Your task to perform on an android device: Open the calendar app, open the side menu, and click the "Day" option Image 0: 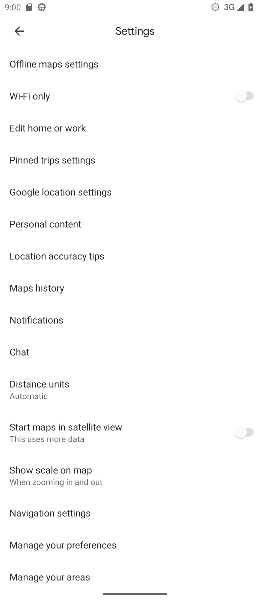
Step 0: press home button
Your task to perform on an android device: Open the calendar app, open the side menu, and click the "Day" option Image 1: 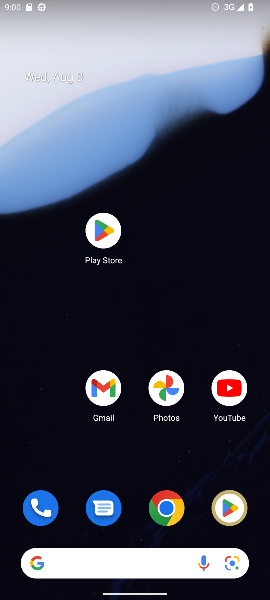
Step 1: drag from (143, 533) to (112, 32)
Your task to perform on an android device: Open the calendar app, open the side menu, and click the "Day" option Image 2: 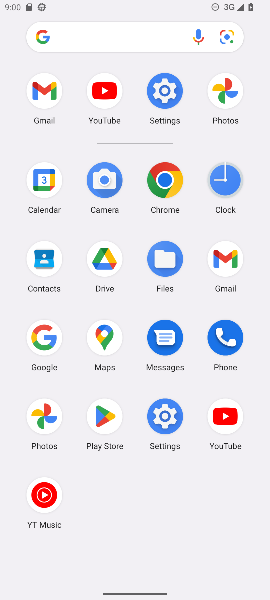
Step 2: click (47, 179)
Your task to perform on an android device: Open the calendar app, open the side menu, and click the "Day" option Image 3: 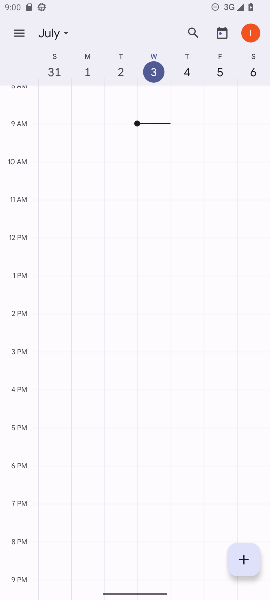
Step 3: click (24, 38)
Your task to perform on an android device: Open the calendar app, open the side menu, and click the "Day" option Image 4: 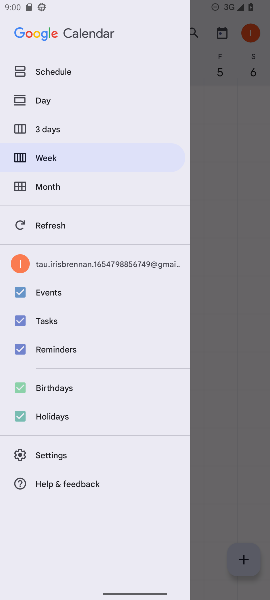
Step 4: click (37, 93)
Your task to perform on an android device: Open the calendar app, open the side menu, and click the "Day" option Image 5: 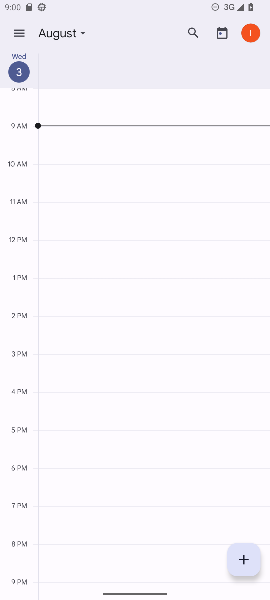
Step 5: task complete